Your task to perform on an android device: turn off picture-in-picture Image 0: 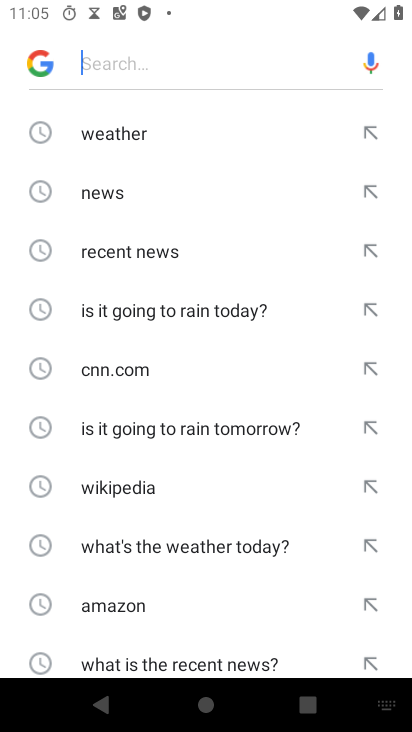
Step 0: press home button
Your task to perform on an android device: turn off picture-in-picture Image 1: 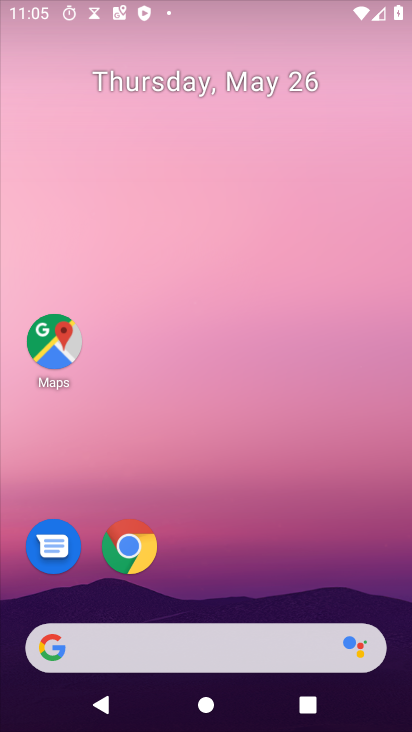
Step 1: drag from (353, 563) to (360, 213)
Your task to perform on an android device: turn off picture-in-picture Image 2: 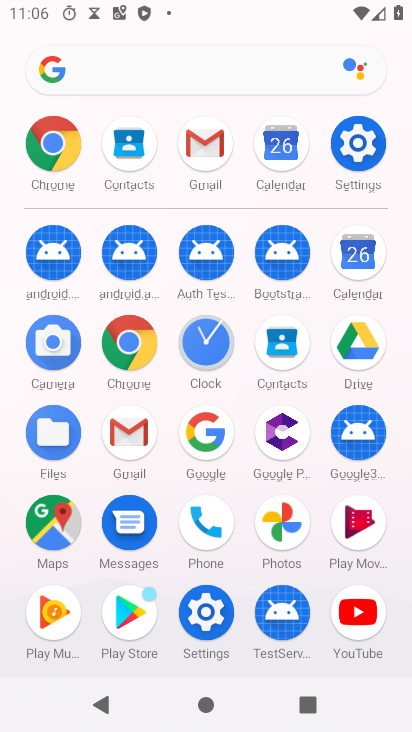
Step 2: drag from (373, 586) to (373, 337)
Your task to perform on an android device: turn off picture-in-picture Image 3: 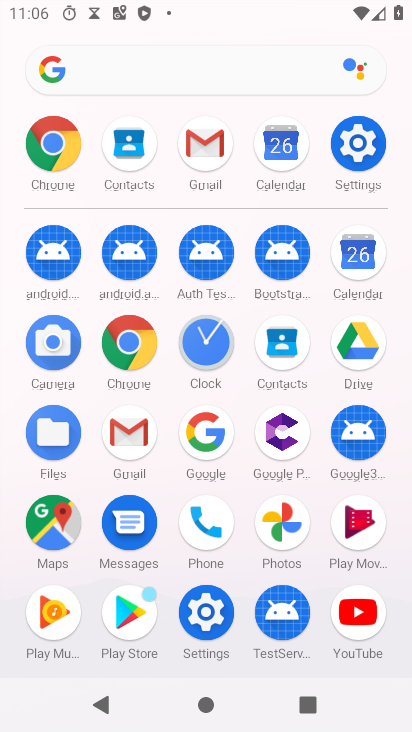
Step 3: click (211, 637)
Your task to perform on an android device: turn off picture-in-picture Image 4: 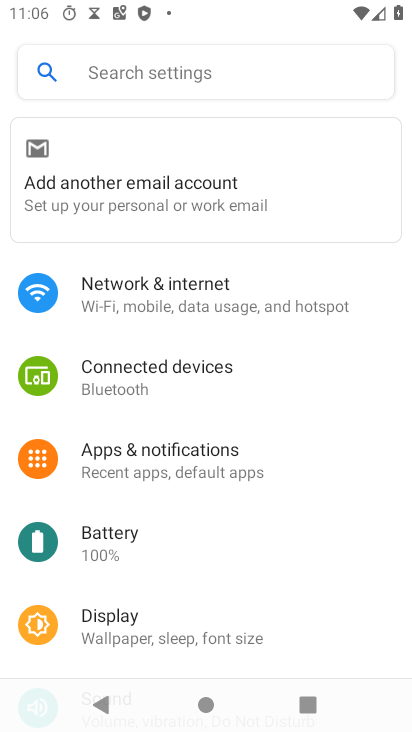
Step 4: click (209, 443)
Your task to perform on an android device: turn off picture-in-picture Image 5: 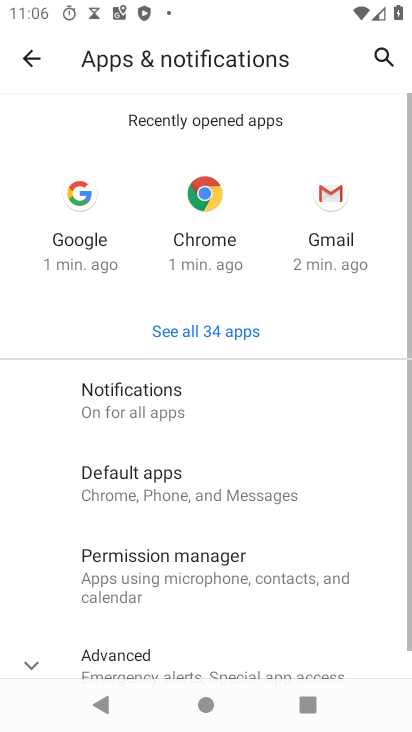
Step 5: drag from (300, 602) to (315, 327)
Your task to perform on an android device: turn off picture-in-picture Image 6: 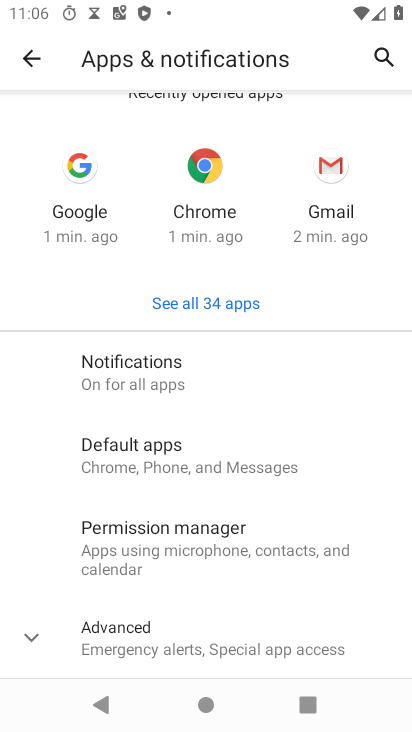
Step 6: click (267, 641)
Your task to perform on an android device: turn off picture-in-picture Image 7: 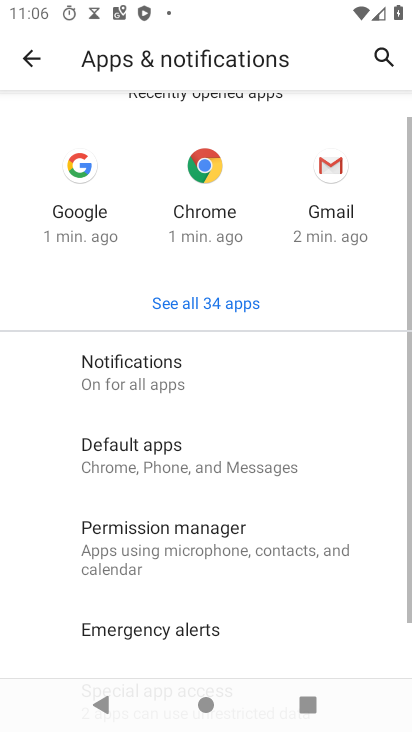
Step 7: click (267, 641)
Your task to perform on an android device: turn off picture-in-picture Image 8: 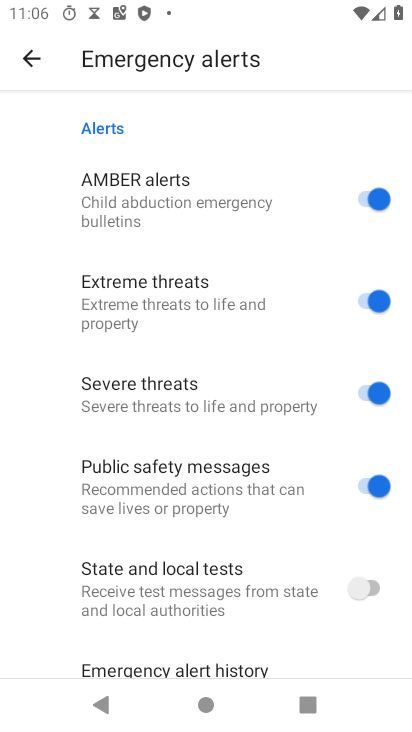
Step 8: click (44, 63)
Your task to perform on an android device: turn off picture-in-picture Image 9: 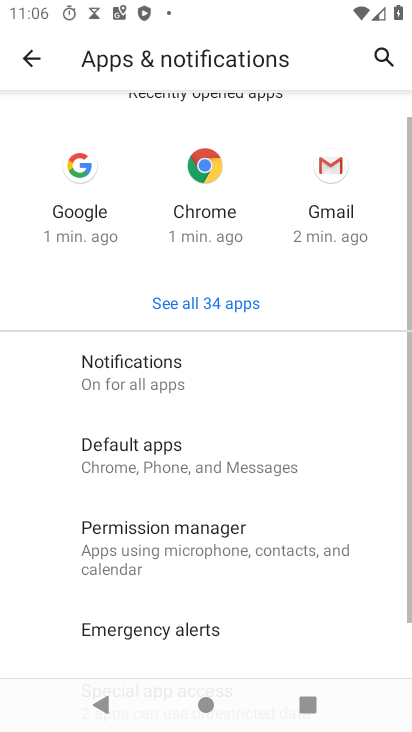
Step 9: drag from (250, 616) to (302, 302)
Your task to perform on an android device: turn off picture-in-picture Image 10: 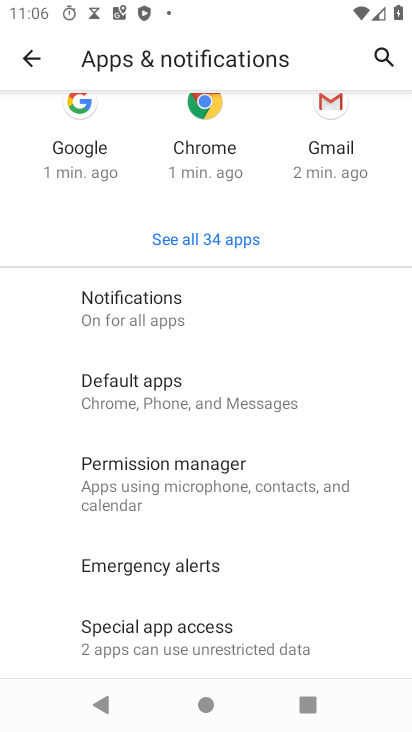
Step 10: click (270, 630)
Your task to perform on an android device: turn off picture-in-picture Image 11: 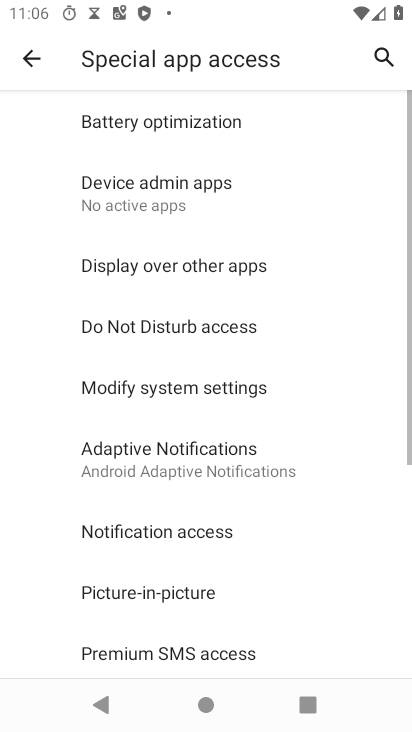
Step 11: drag from (242, 645) to (304, 374)
Your task to perform on an android device: turn off picture-in-picture Image 12: 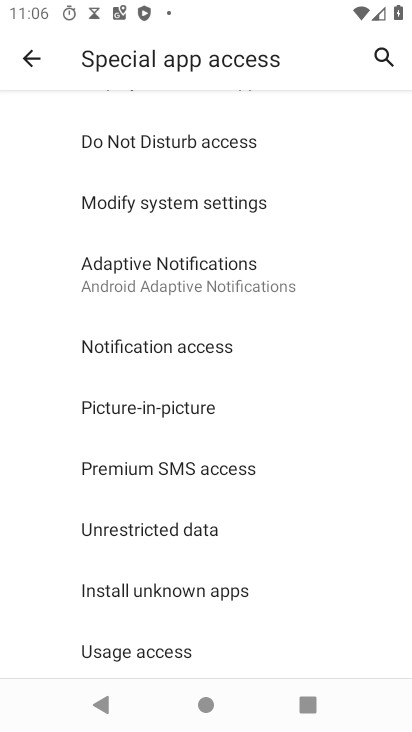
Step 12: click (176, 398)
Your task to perform on an android device: turn off picture-in-picture Image 13: 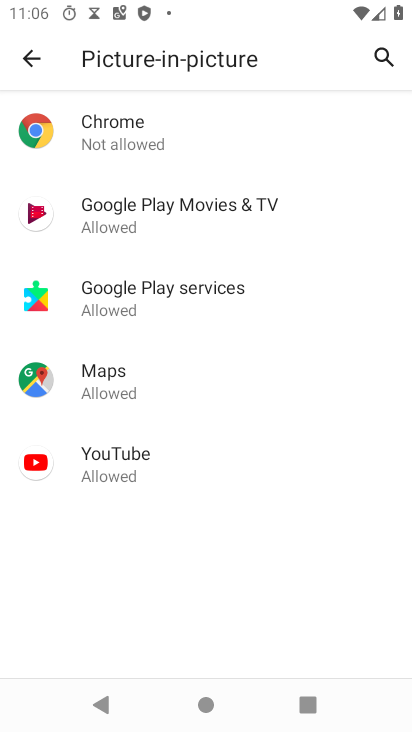
Step 13: click (211, 127)
Your task to perform on an android device: turn off picture-in-picture Image 14: 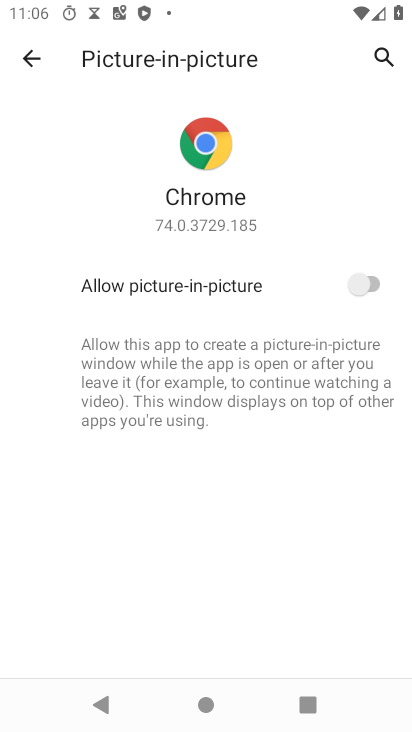
Step 14: task complete